Your task to perform on an android device: Go to sound settings Image 0: 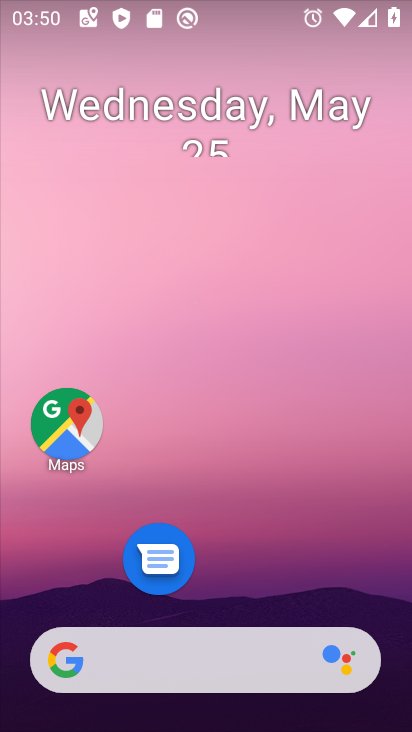
Step 0: drag from (222, 596) to (222, 35)
Your task to perform on an android device: Go to sound settings Image 1: 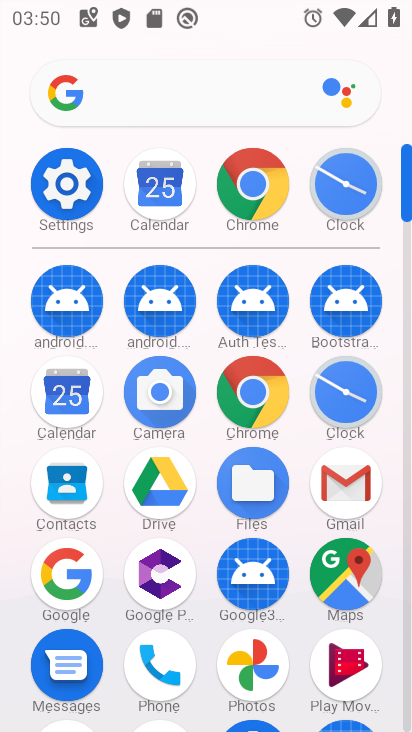
Step 1: click (65, 182)
Your task to perform on an android device: Go to sound settings Image 2: 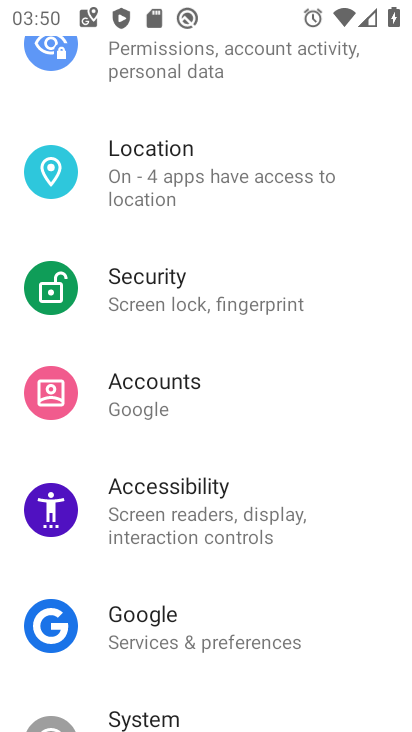
Step 2: drag from (164, 675) to (209, 729)
Your task to perform on an android device: Go to sound settings Image 3: 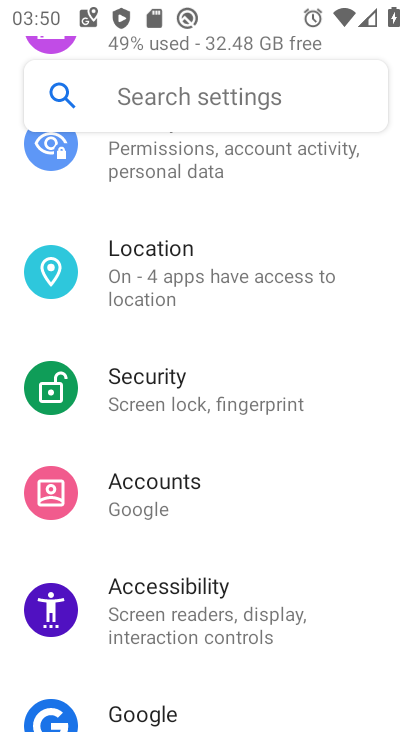
Step 3: drag from (171, 205) to (256, 731)
Your task to perform on an android device: Go to sound settings Image 4: 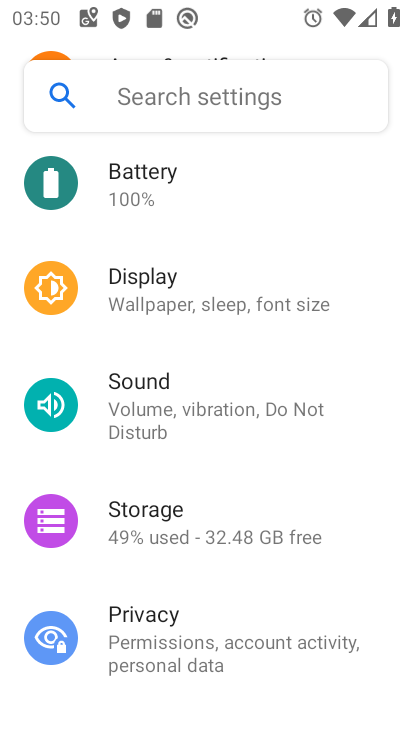
Step 4: click (212, 396)
Your task to perform on an android device: Go to sound settings Image 5: 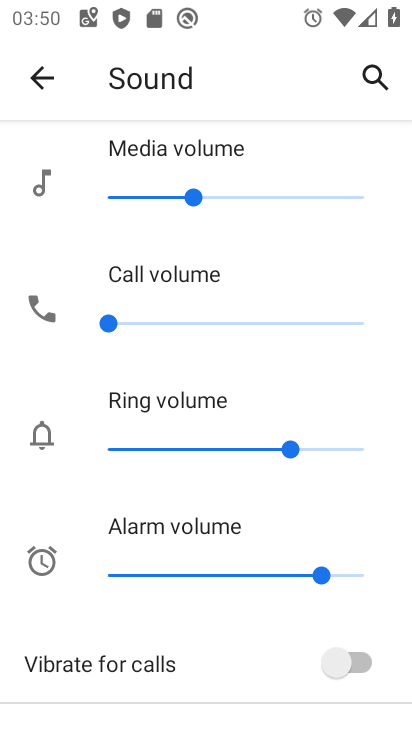
Step 5: drag from (196, 688) to (192, 155)
Your task to perform on an android device: Go to sound settings Image 6: 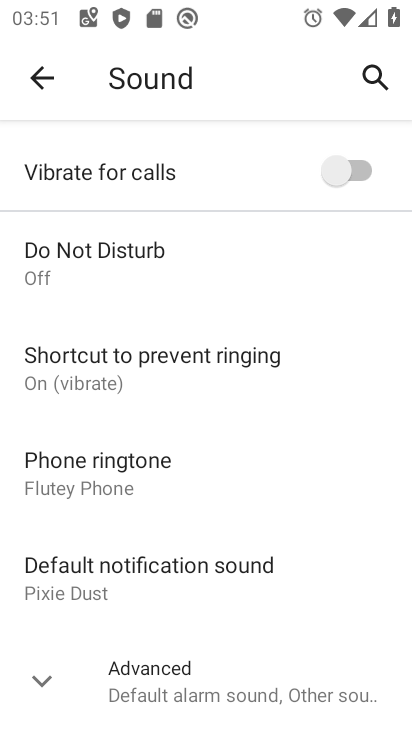
Step 6: click (57, 671)
Your task to perform on an android device: Go to sound settings Image 7: 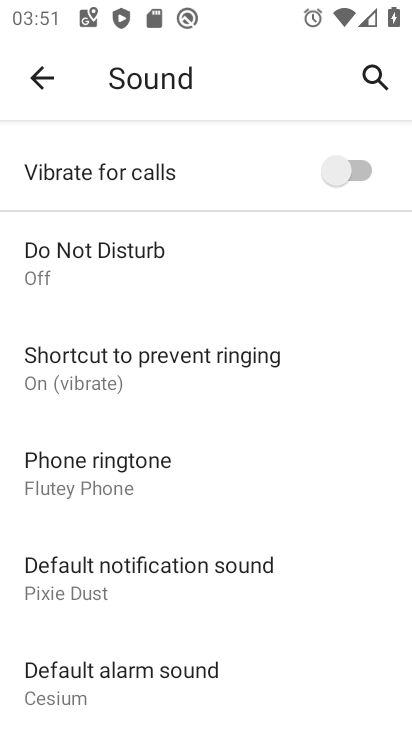
Step 7: task complete